Your task to perform on an android device: Open ESPN.com Image 0: 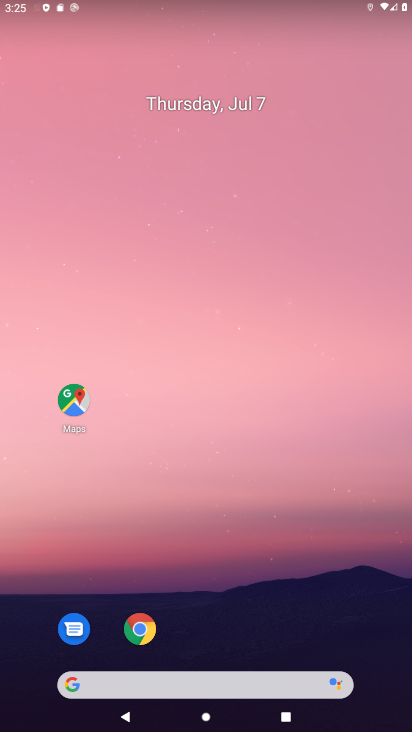
Step 0: press home button
Your task to perform on an android device: Open ESPN.com Image 1: 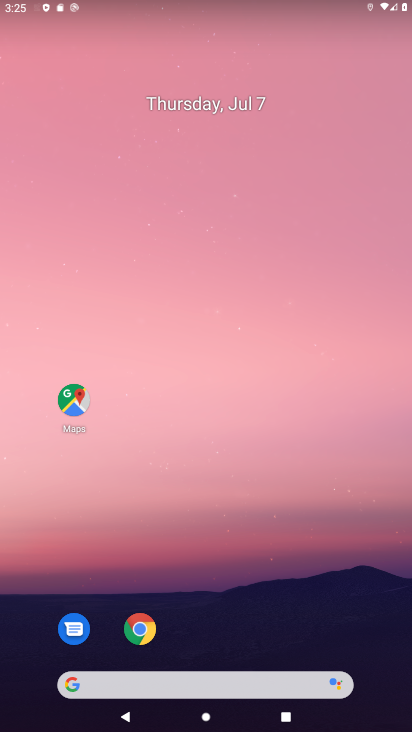
Step 1: click (70, 687)
Your task to perform on an android device: Open ESPN.com Image 2: 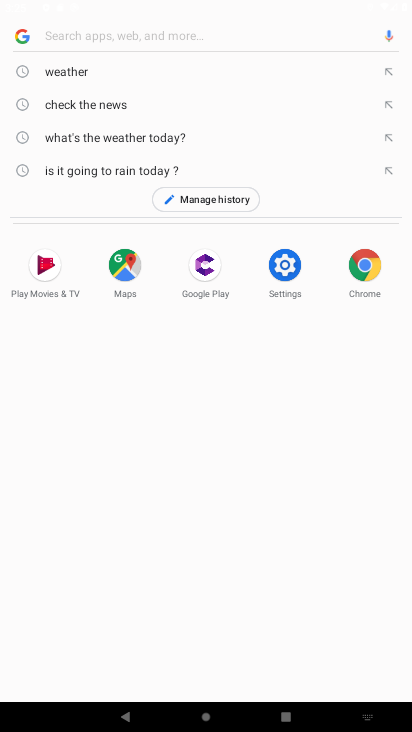
Step 2: type "ESPN.com"
Your task to perform on an android device: Open ESPN.com Image 3: 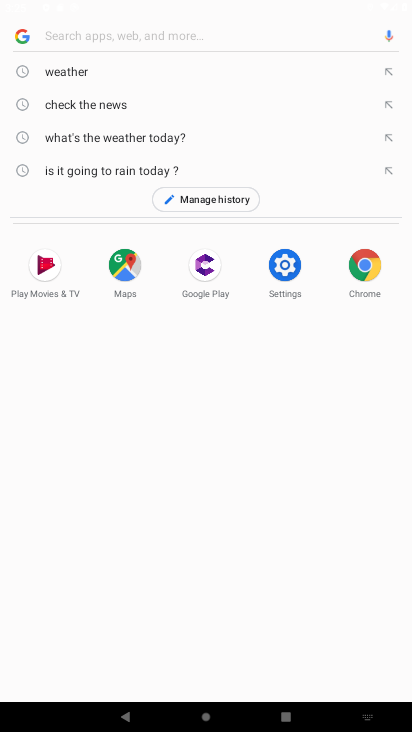
Step 3: click (167, 35)
Your task to perform on an android device: Open ESPN.com Image 4: 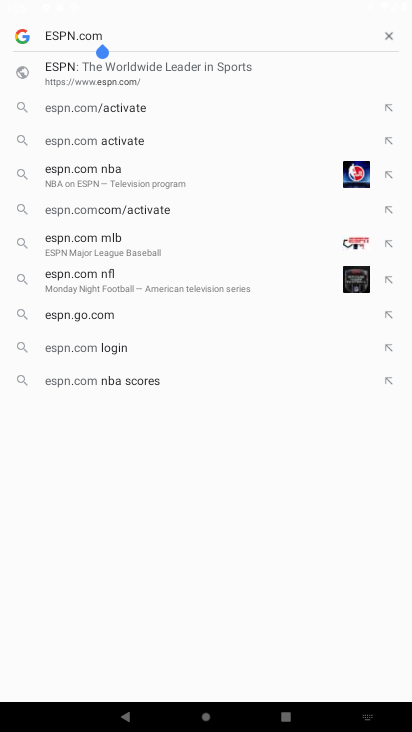
Step 4: click (67, 70)
Your task to perform on an android device: Open ESPN.com Image 5: 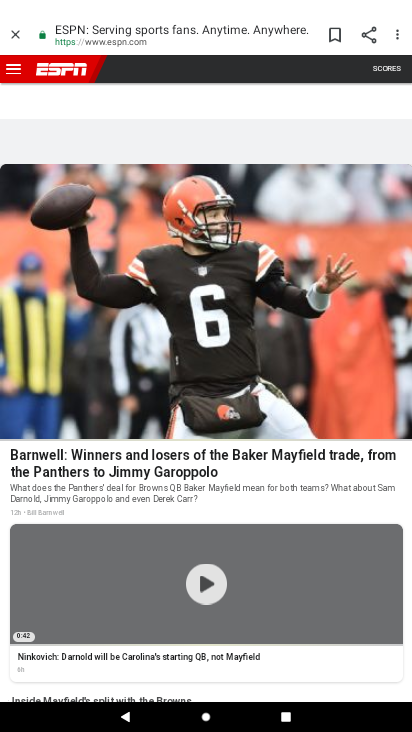
Step 5: task complete